Your task to perform on an android device: Open Yahoo.com Image 0: 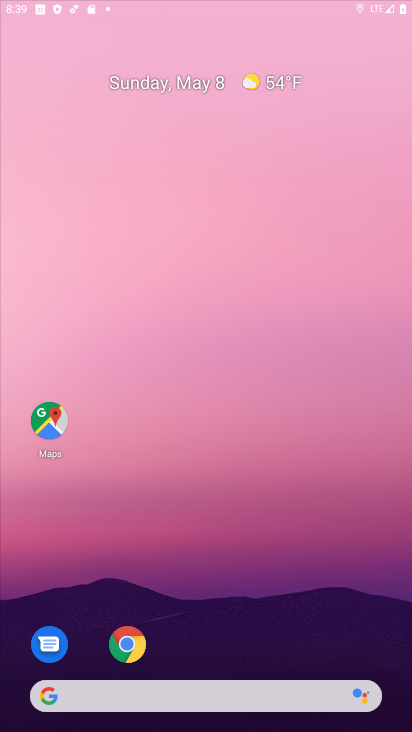
Step 0: drag from (236, 251) to (236, 143)
Your task to perform on an android device: Open Yahoo.com Image 1: 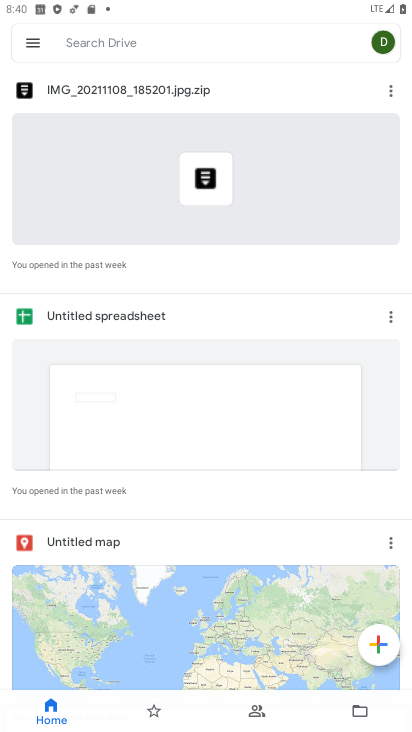
Step 1: drag from (188, 639) to (281, 94)
Your task to perform on an android device: Open Yahoo.com Image 2: 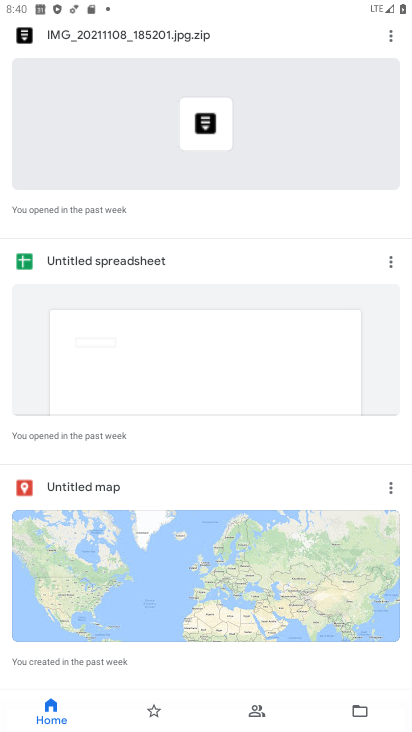
Step 2: drag from (201, 145) to (373, 612)
Your task to perform on an android device: Open Yahoo.com Image 3: 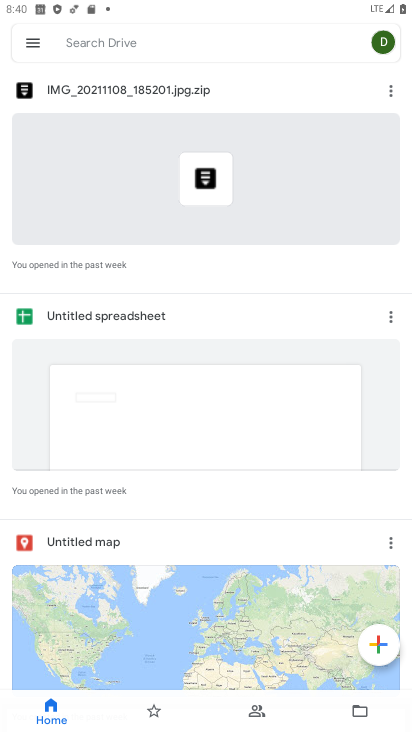
Step 3: press home button
Your task to perform on an android device: Open Yahoo.com Image 4: 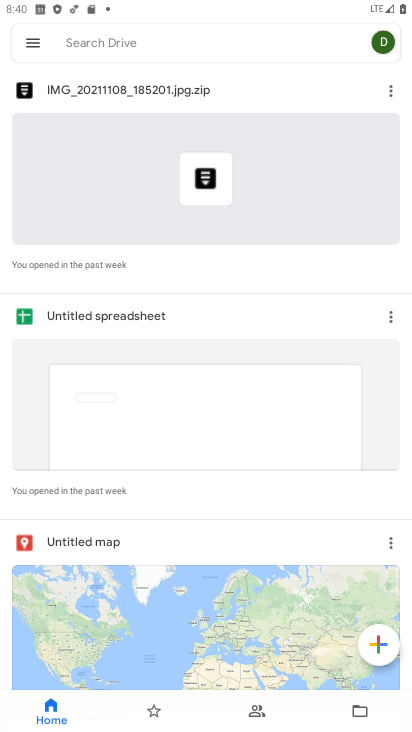
Step 4: press home button
Your task to perform on an android device: Open Yahoo.com Image 5: 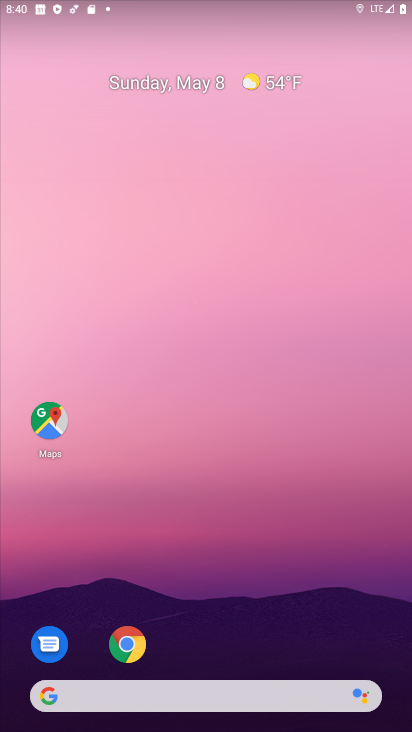
Step 5: drag from (154, 661) to (200, 320)
Your task to perform on an android device: Open Yahoo.com Image 6: 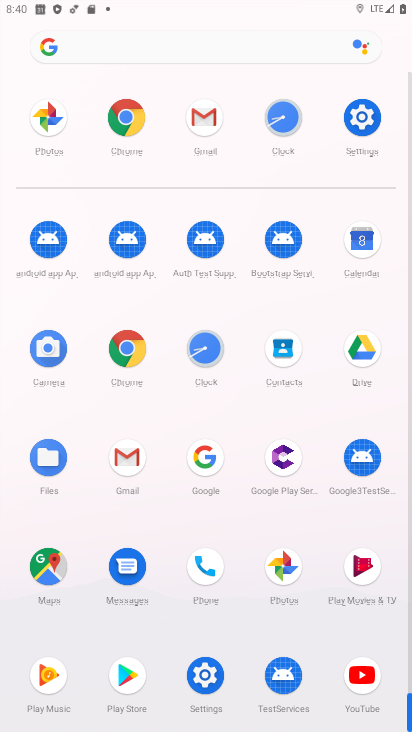
Step 6: click (196, 40)
Your task to perform on an android device: Open Yahoo.com Image 7: 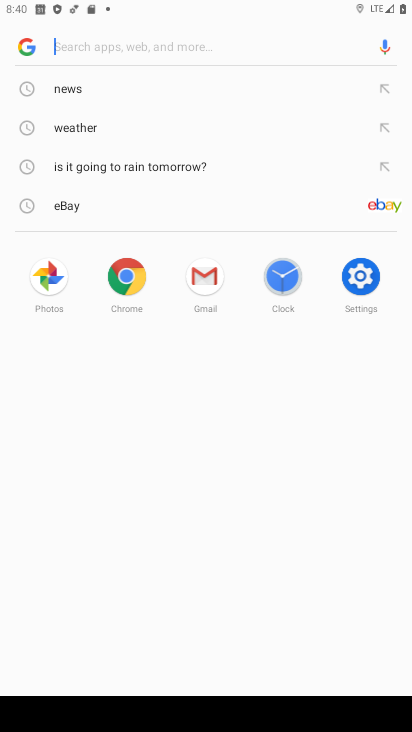
Step 7: type "yahoo.com"
Your task to perform on an android device: Open Yahoo.com Image 8: 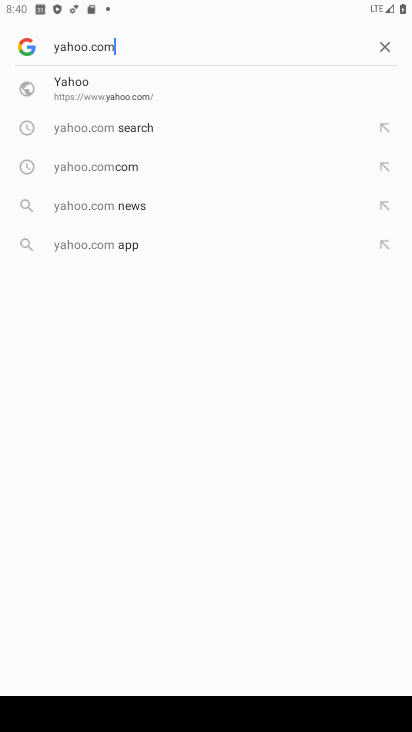
Step 8: click (113, 82)
Your task to perform on an android device: Open Yahoo.com Image 9: 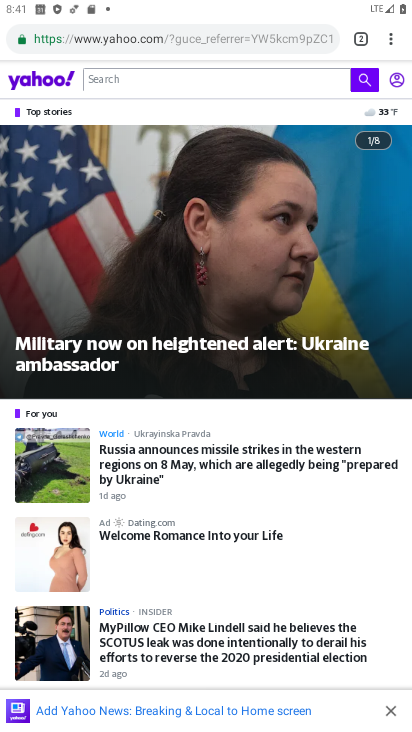
Step 9: task complete